Your task to perform on an android device: turn on airplane mode Image 0: 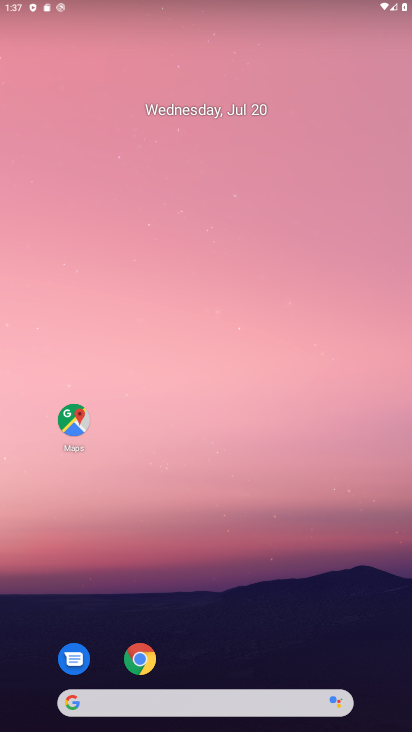
Step 0: click (81, 417)
Your task to perform on an android device: turn on airplane mode Image 1: 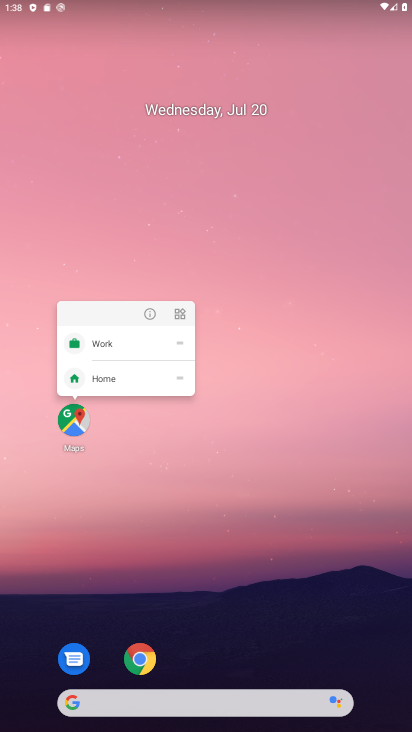
Step 1: drag from (35, 693) to (218, 176)
Your task to perform on an android device: turn on airplane mode Image 2: 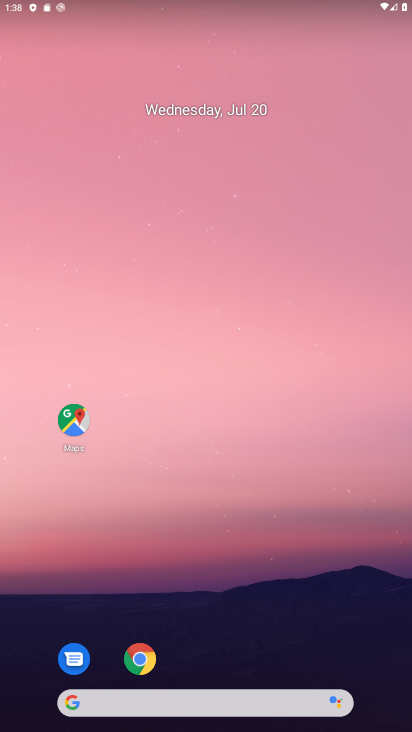
Step 2: drag from (72, 593) to (270, 47)
Your task to perform on an android device: turn on airplane mode Image 3: 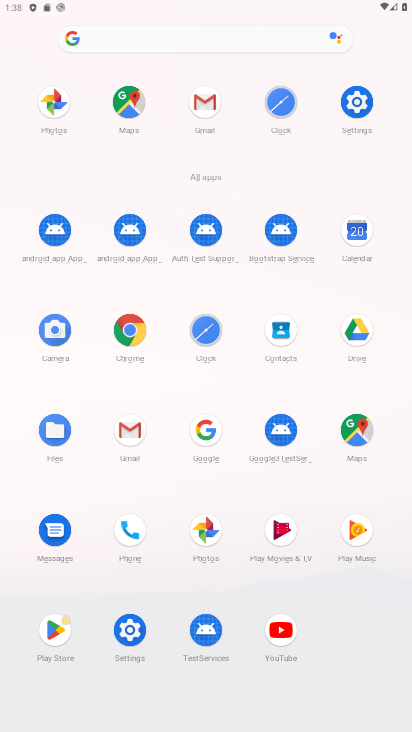
Step 3: click (135, 625)
Your task to perform on an android device: turn on airplane mode Image 4: 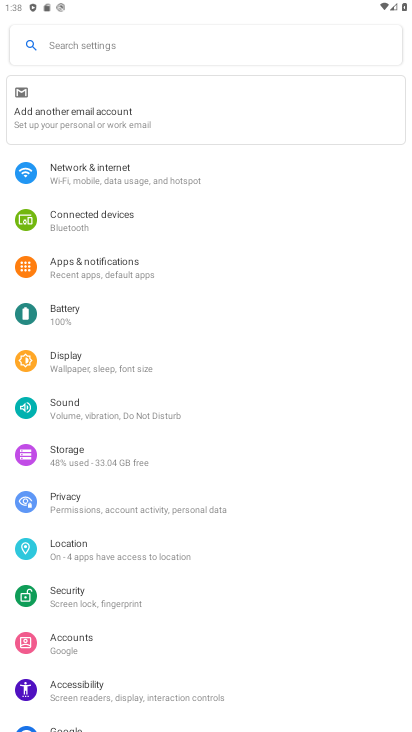
Step 4: click (124, 185)
Your task to perform on an android device: turn on airplane mode Image 5: 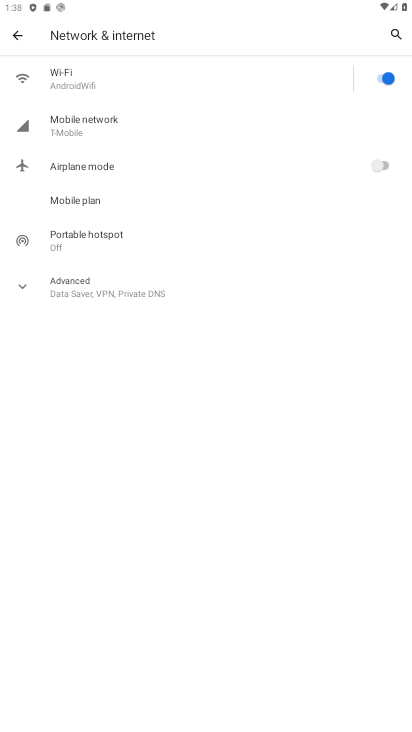
Step 5: click (378, 171)
Your task to perform on an android device: turn on airplane mode Image 6: 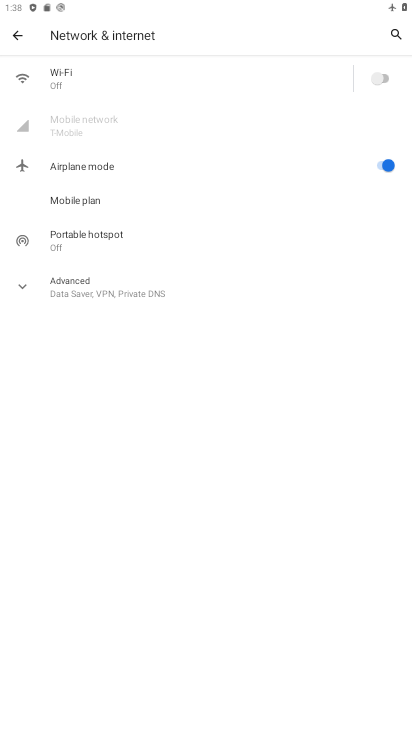
Step 6: task complete